Your task to perform on an android device: add a contact in the contacts app Image 0: 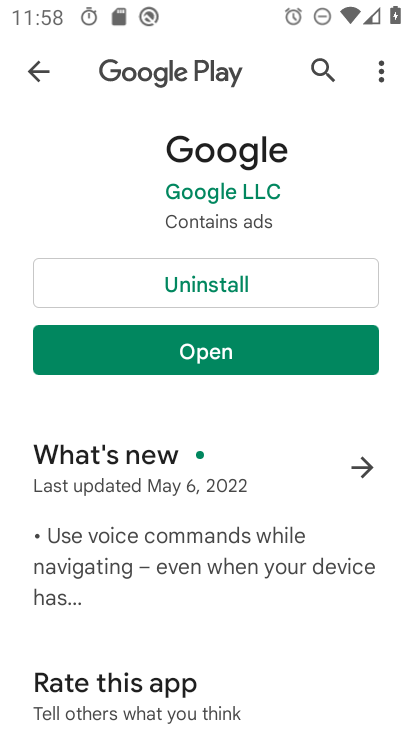
Step 0: press home button
Your task to perform on an android device: add a contact in the contacts app Image 1: 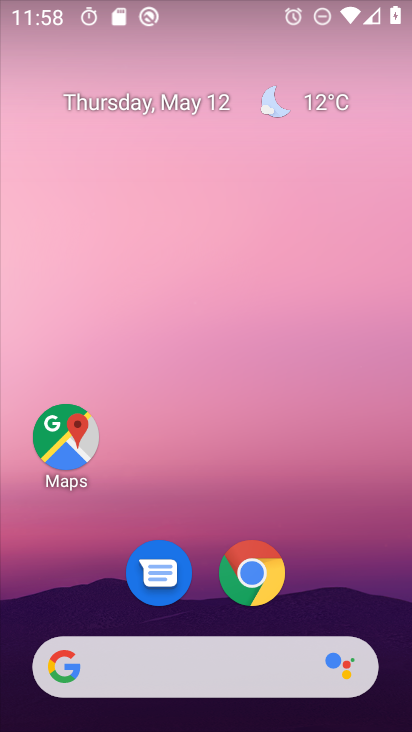
Step 1: drag from (406, 461) to (369, 243)
Your task to perform on an android device: add a contact in the contacts app Image 2: 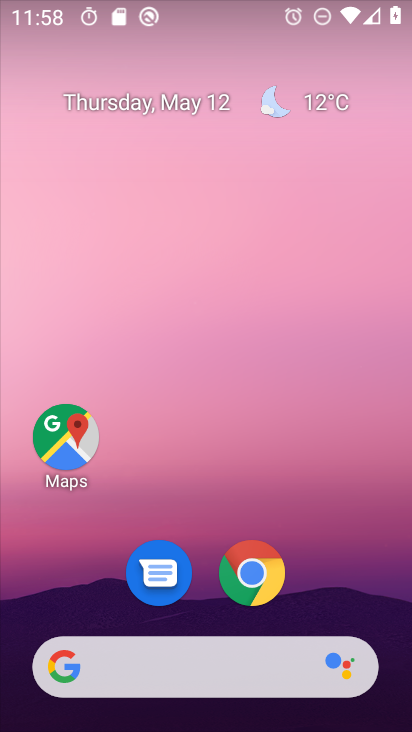
Step 2: click (363, 358)
Your task to perform on an android device: add a contact in the contacts app Image 3: 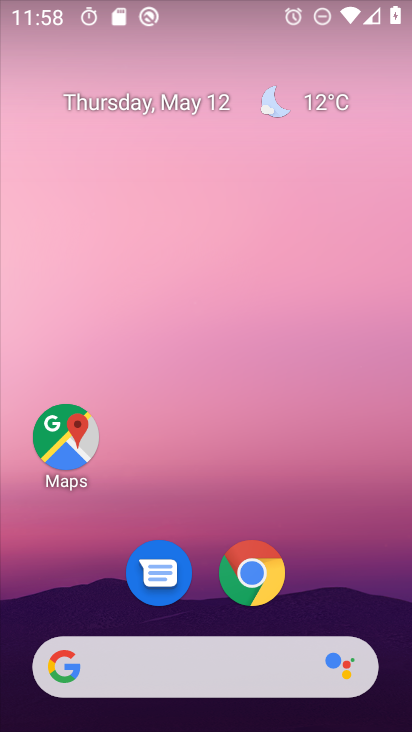
Step 3: drag from (397, 681) to (325, 304)
Your task to perform on an android device: add a contact in the contacts app Image 4: 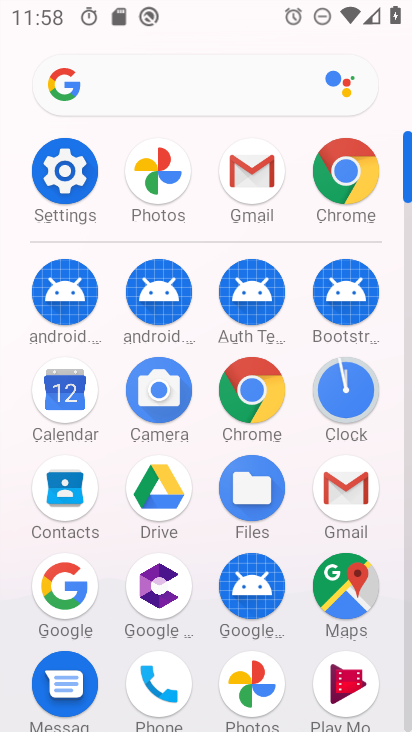
Step 4: click (52, 498)
Your task to perform on an android device: add a contact in the contacts app Image 5: 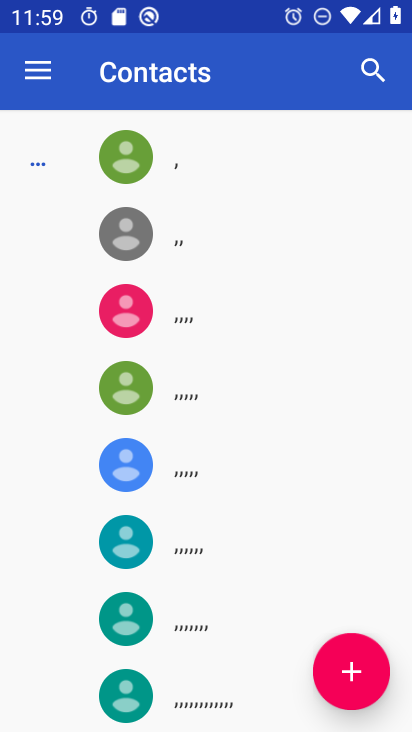
Step 5: click (348, 679)
Your task to perform on an android device: add a contact in the contacts app Image 6: 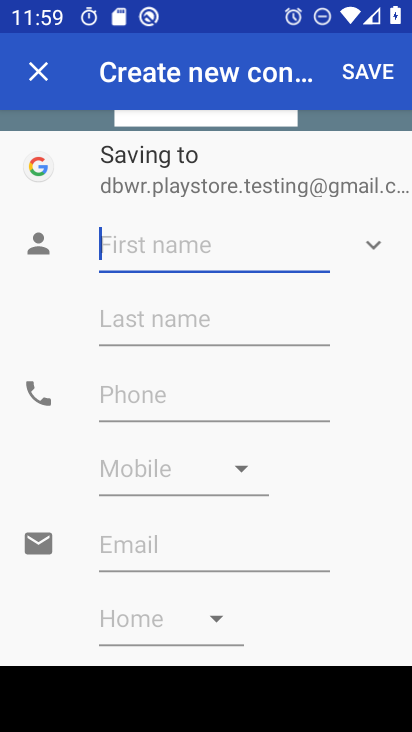
Step 6: type "hjkkjhg"
Your task to perform on an android device: add a contact in the contacts app Image 7: 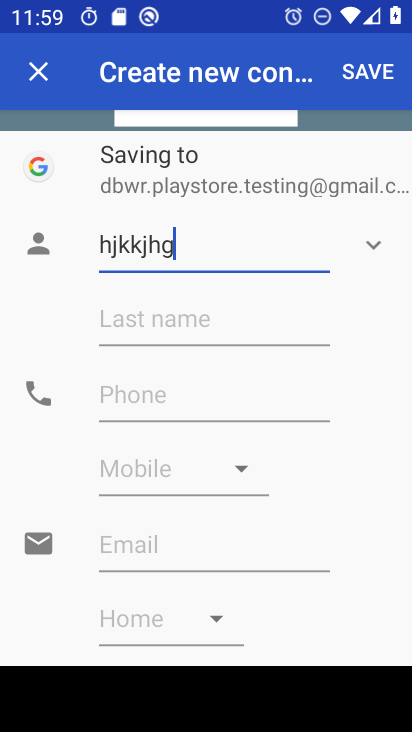
Step 7: click (117, 326)
Your task to perform on an android device: add a contact in the contacts app Image 8: 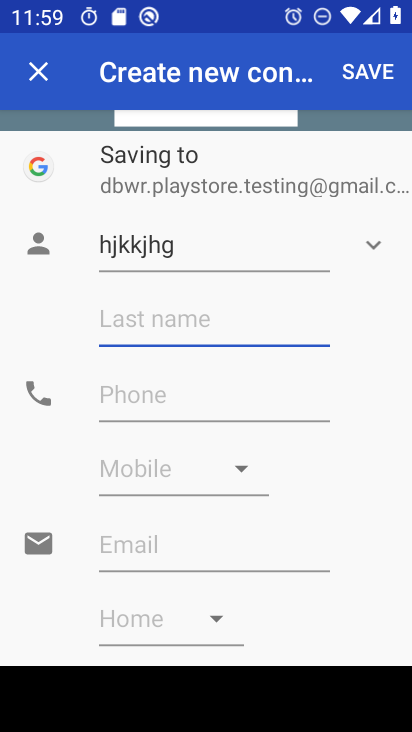
Step 8: type "dfghjkljx"
Your task to perform on an android device: add a contact in the contacts app Image 9: 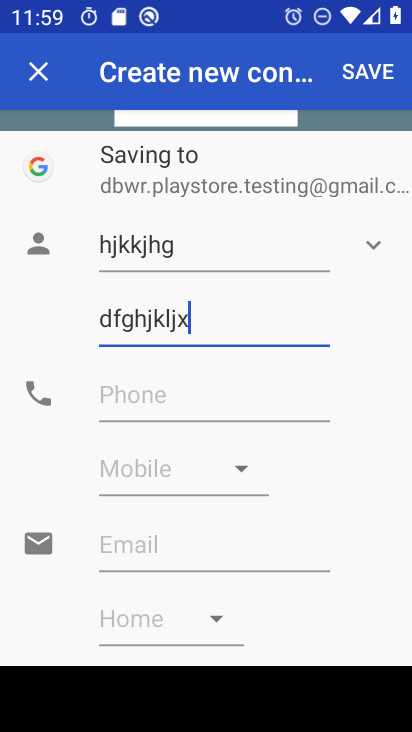
Step 9: click (212, 391)
Your task to perform on an android device: add a contact in the contacts app Image 10: 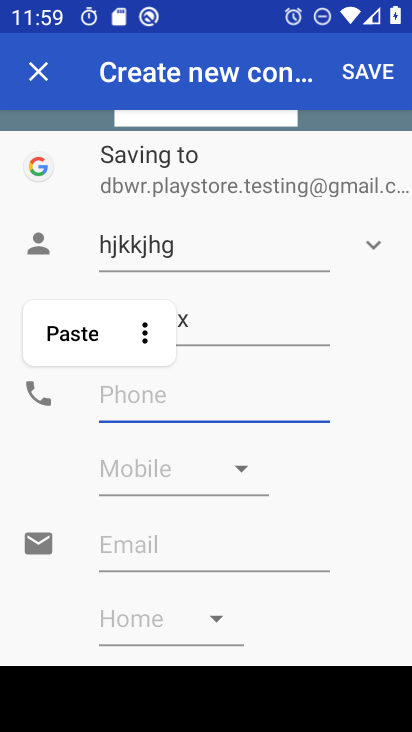
Step 10: type "2345678987"
Your task to perform on an android device: add a contact in the contacts app Image 11: 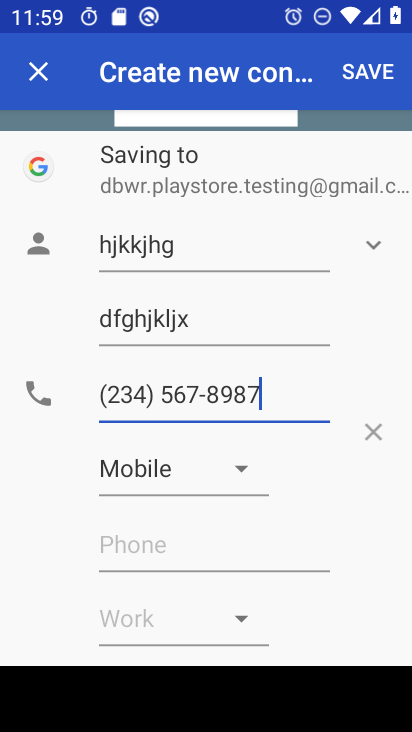
Step 11: click (361, 67)
Your task to perform on an android device: add a contact in the contacts app Image 12: 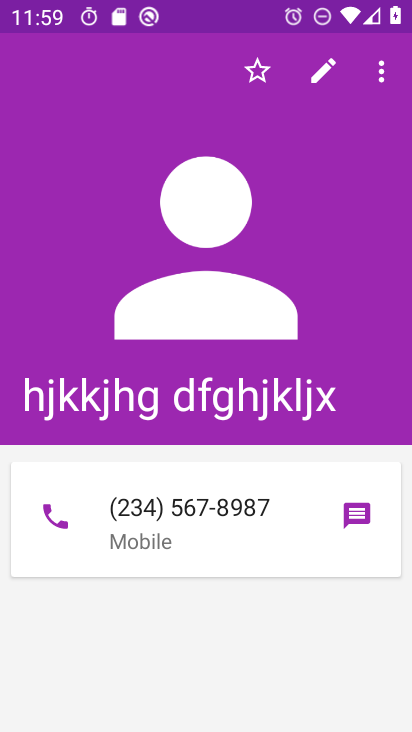
Step 12: task complete